Your task to perform on an android device: all mails in gmail Image 0: 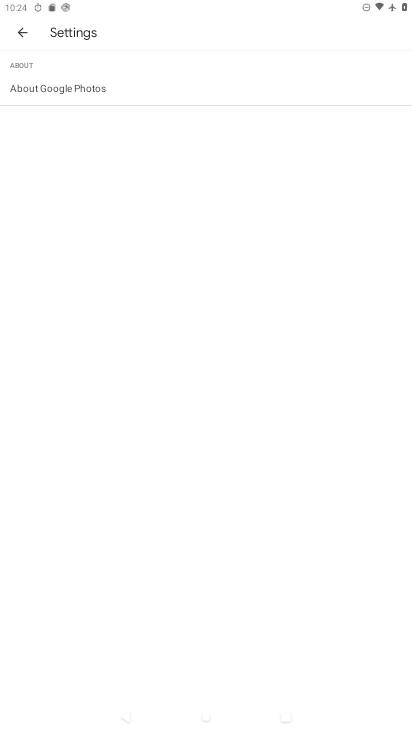
Step 0: press home button
Your task to perform on an android device: all mails in gmail Image 1: 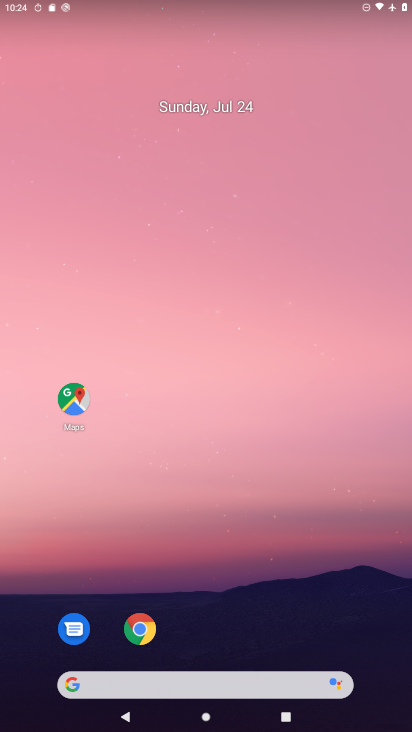
Step 1: drag from (213, 667) to (299, 127)
Your task to perform on an android device: all mails in gmail Image 2: 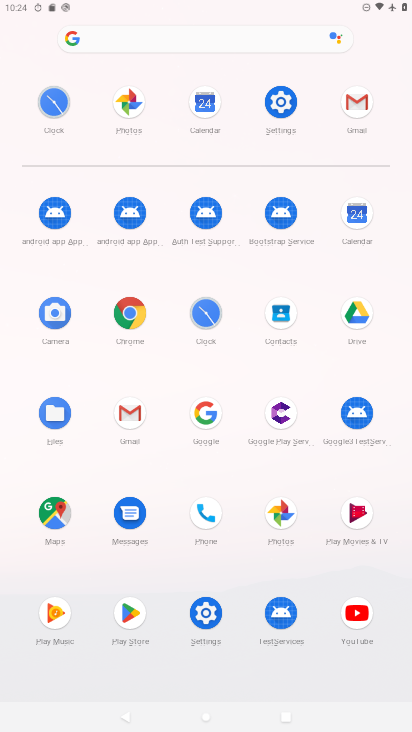
Step 2: click (136, 434)
Your task to perform on an android device: all mails in gmail Image 3: 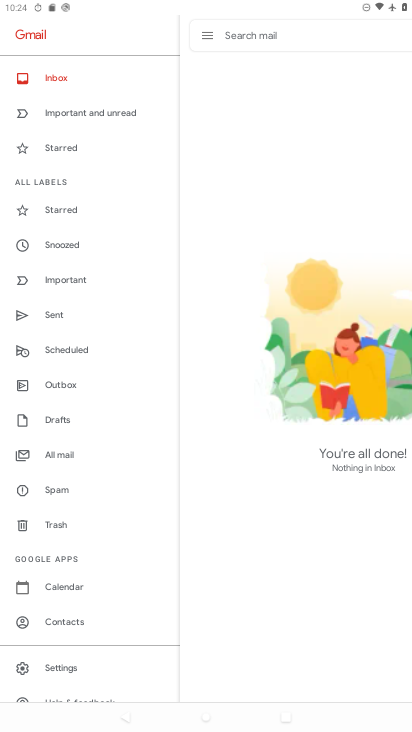
Step 3: click (67, 452)
Your task to perform on an android device: all mails in gmail Image 4: 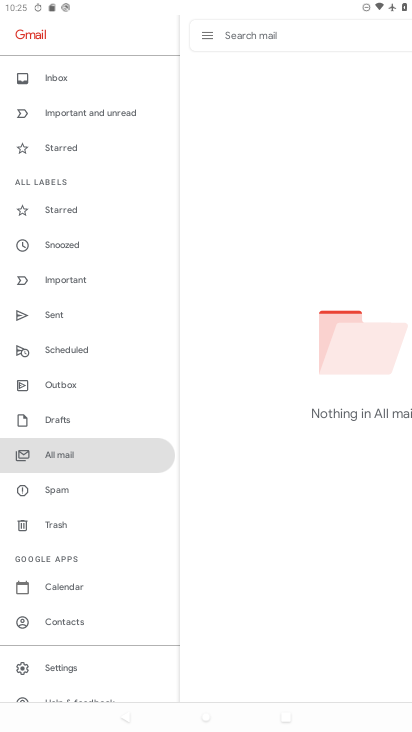
Step 4: task complete